Your task to perform on an android device: toggle priority inbox in the gmail app Image 0: 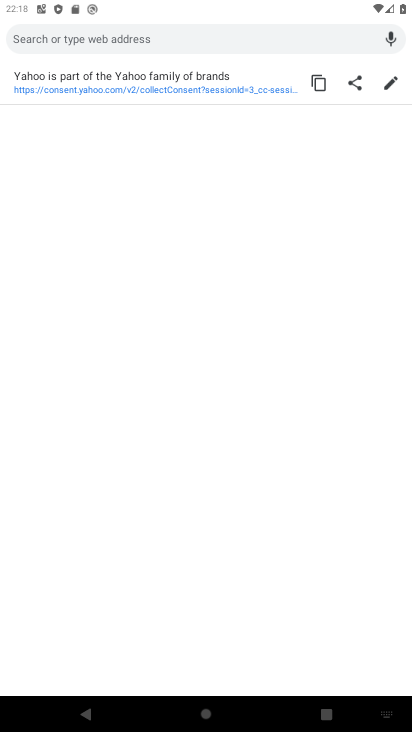
Step 0: press home button
Your task to perform on an android device: toggle priority inbox in the gmail app Image 1: 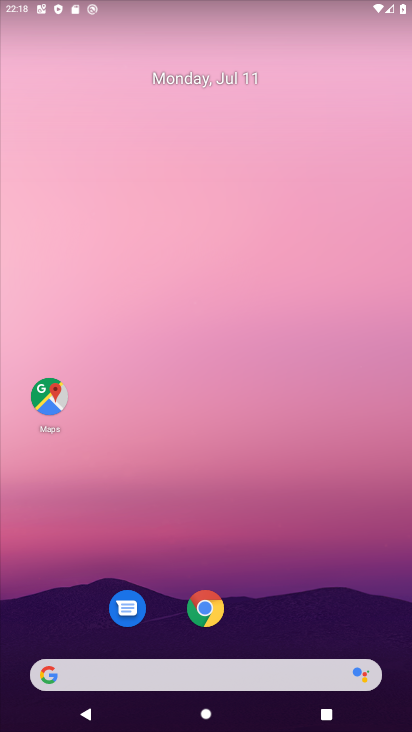
Step 1: drag from (32, 709) to (384, 3)
Your task to perform on an android device: toggle priority inbox in the gmail app Image 2: 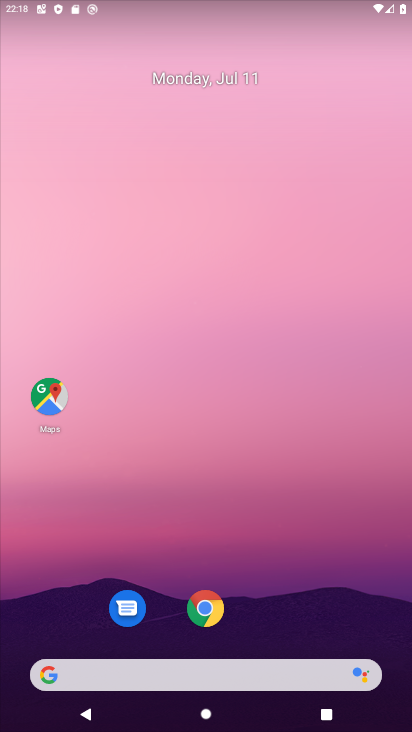
Step 2: drag from (29, 715) to (251, 83)
Your task to perform on an android device: toggle priority inbox in the gmail app Image 3: 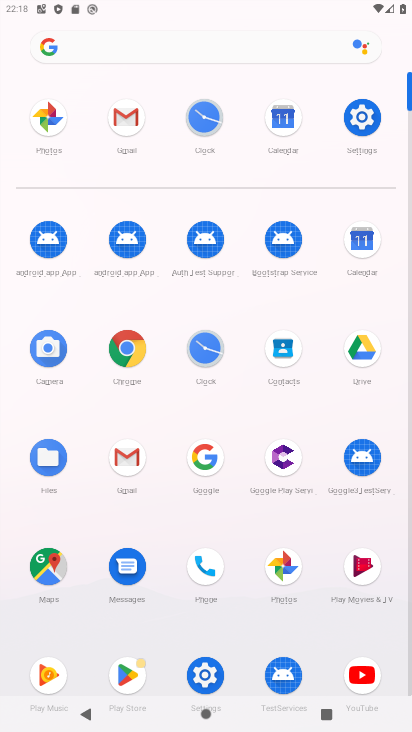
Step 3: click (130, 114)
Your task to perform on an android device: toggle priority inbox in the gmail app Image 4: 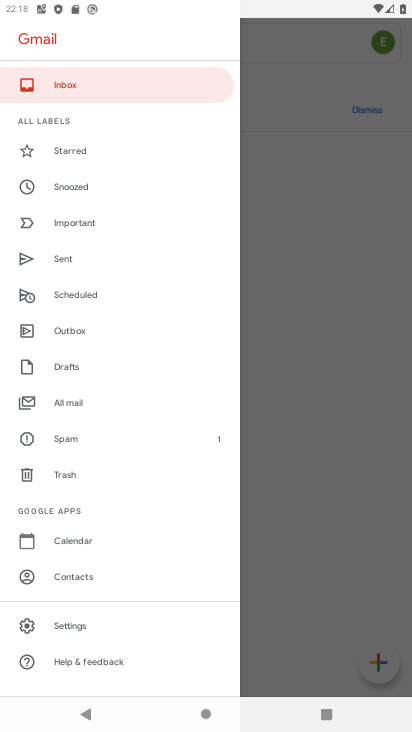
Step 4: click (57, 622)
Your task to perform on an android device: toggle priority inbox in the gmail app Image 5: 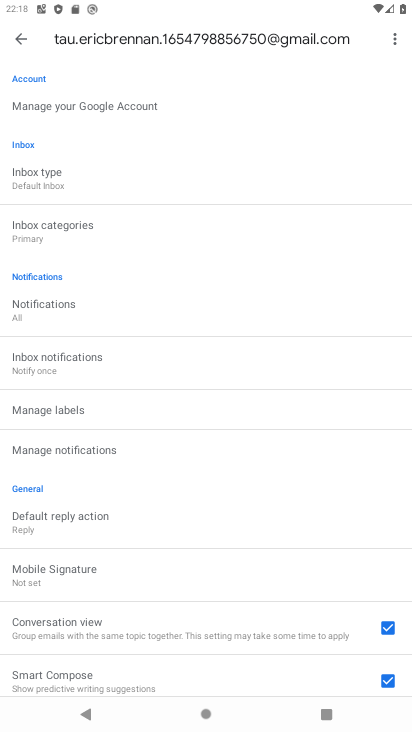
Step 5: click (88, 177)
Your task to perform on an android device: toggle priority inbox in the gmail app Image 6: 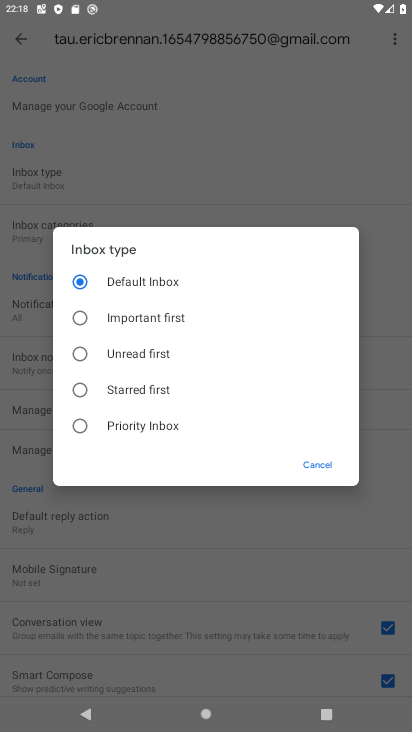
Step 6: click (72, 415)
Your task to perform on an android device: toggle priority inbox in the gmail app Image 7: 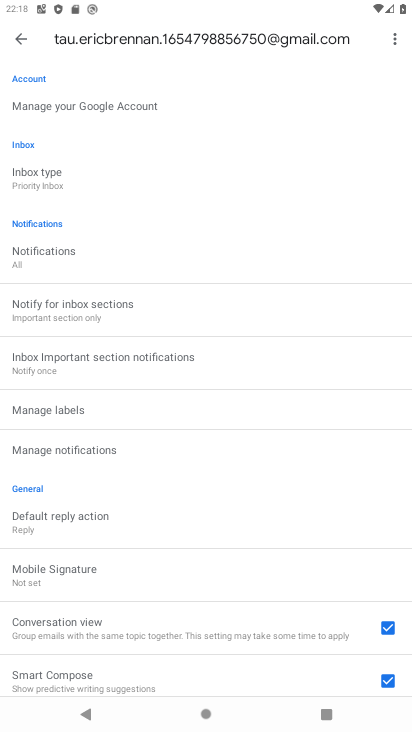
Step 7: task complete